Your task to perform on an android device: check battery use Image 0: 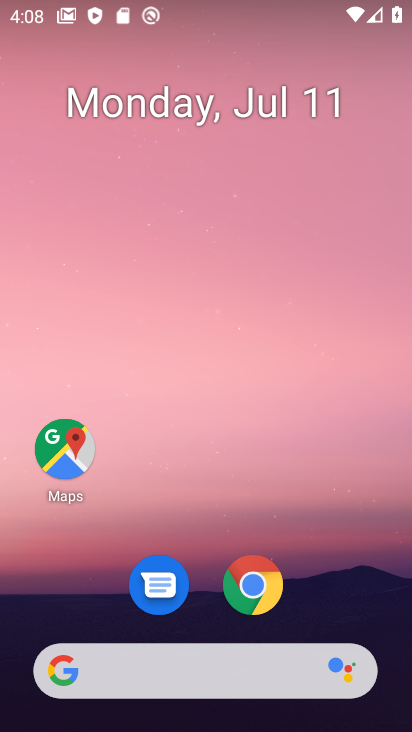
Step 0: drag from (354, 581) to (271, 0)
Your task to perform on an android device: check battery use Image 1: 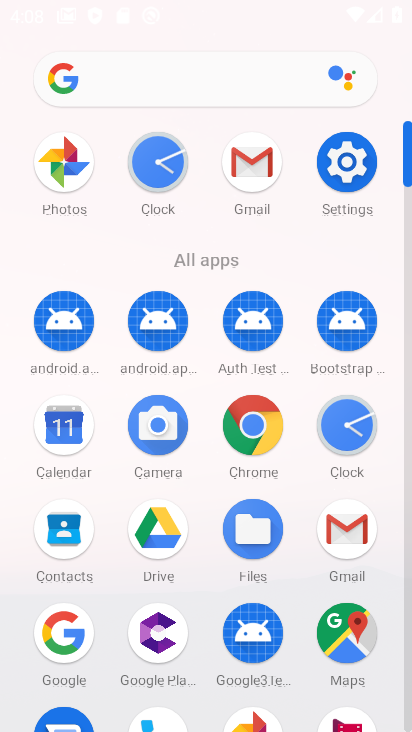
Step 1: click (340, 147)
Your task to perform on an android device: check battery use Image 2: 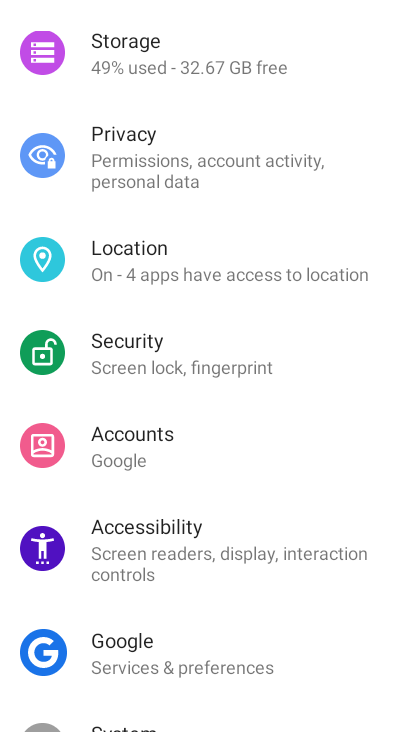
Step 2: drag from (261, 254) to (227, 649)
Your task to perform on an android device: check battery use Image 3: 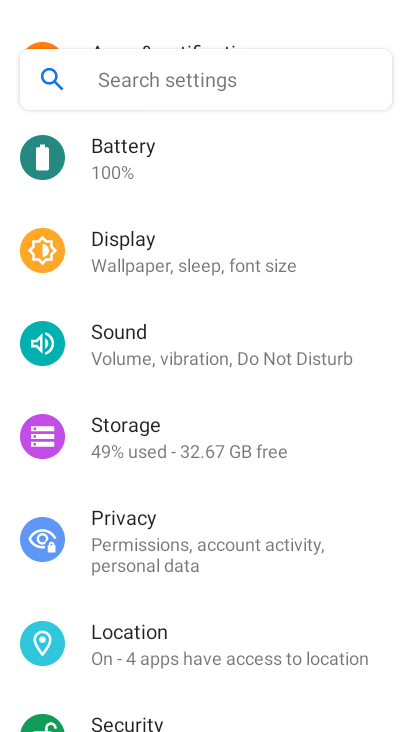
Step 3: click (159, 157)
Your task to perform on an android device: check battery use Image 4: 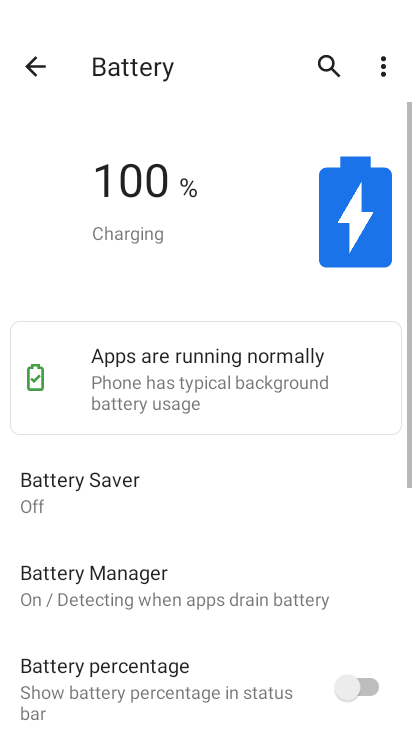
Step 4: click (374, 58)
Your task to perform on an android device: check battery use Image 5: 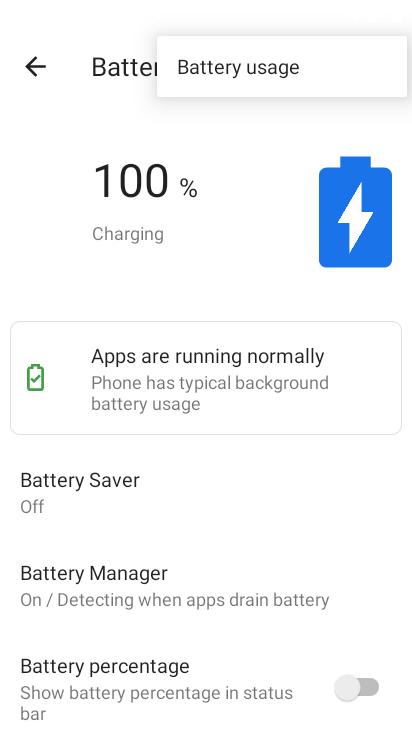
Step 5: click (304, 64)
Your task to perform on an android device: check battery use Image 6: 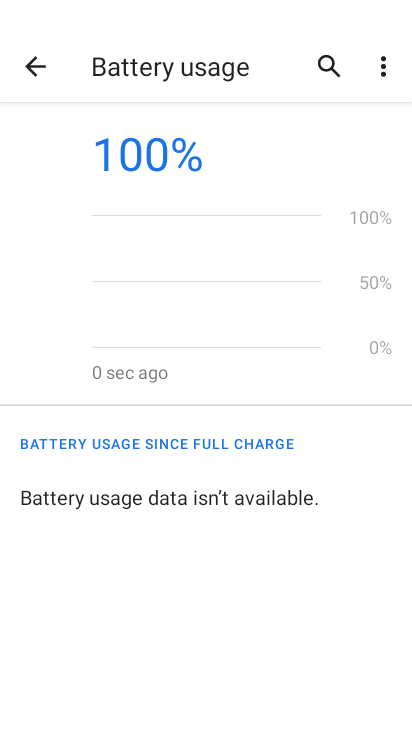
Step 6: task complete